Your task to perform on an android device: Open wifi settings Image 0: 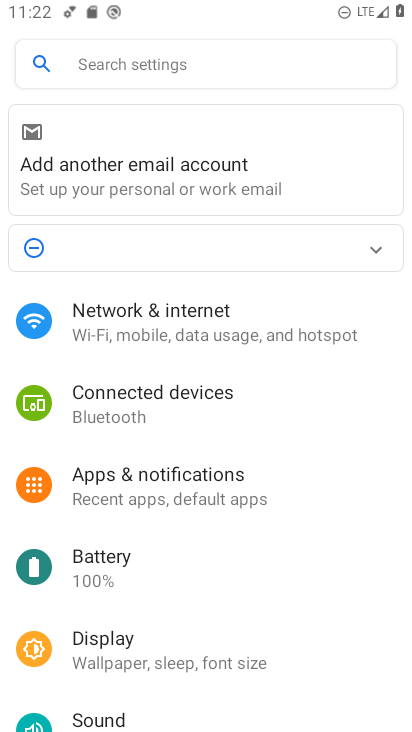
Step 0: press home button
Your task to perform on an android device: Open wifi settings Image 1: 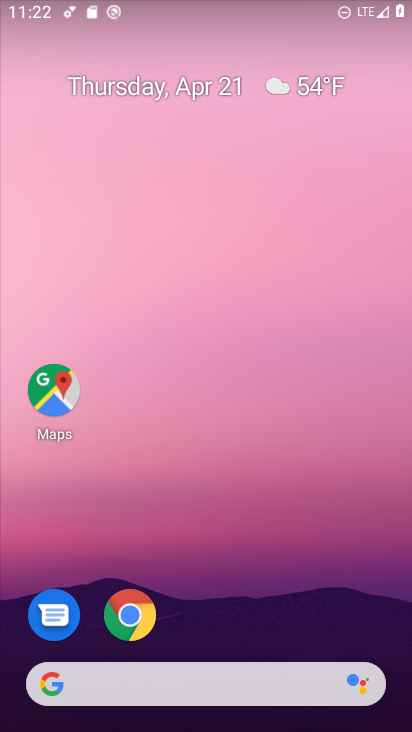
Step 1: drag from (216, 619) to (224, 146)
Your task to perform on an android device: Open wifi settings Image 2: 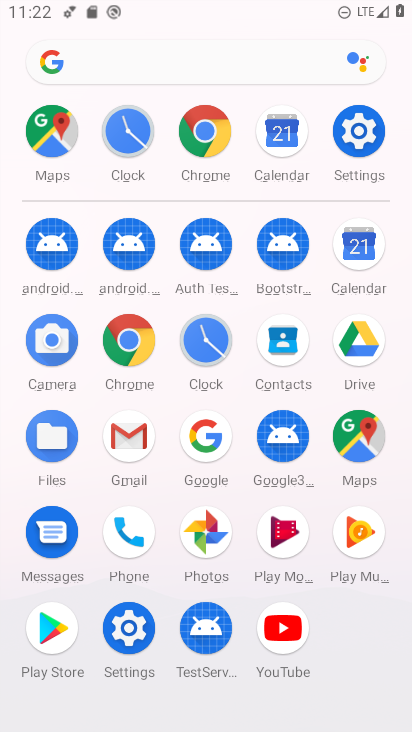
Step 2: click (369, 132)
Your task to perform on an android device: Open wifi settings Image 3: 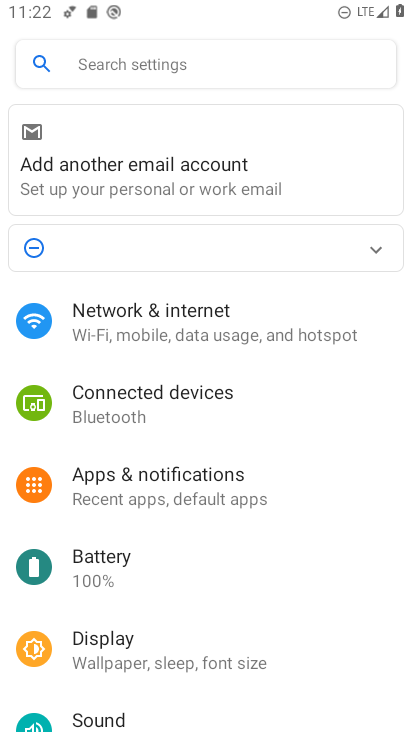
Step 3: click (252, 314)
Your task to perform on an android device: Open wifi settings Image 4: 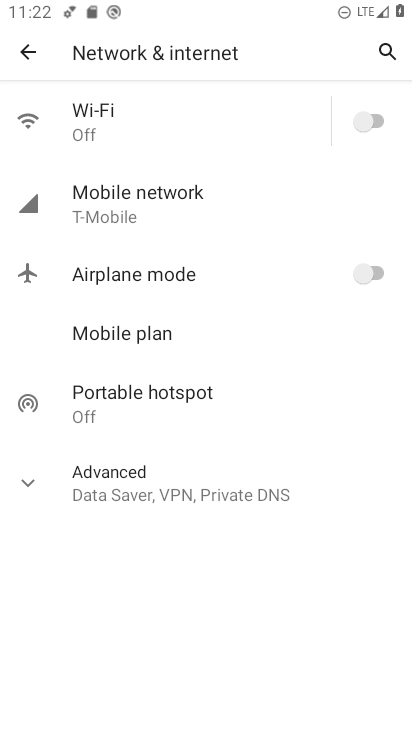
Step 4: click (205, 130)
Your task to perform on an android device: Open wifi settings Image 5: 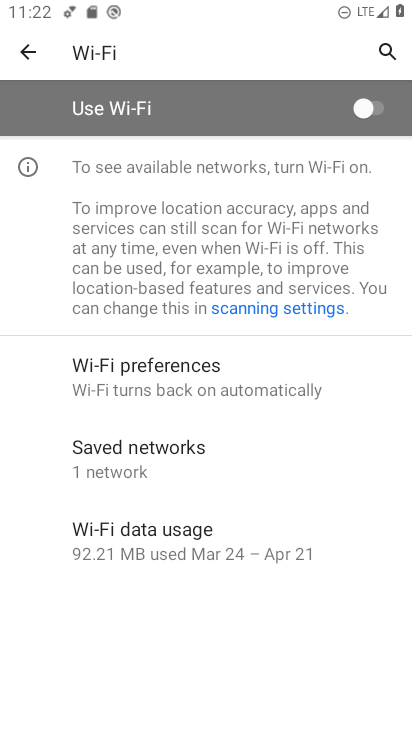
Step 5: task complete